Your task to perform on an android device: open device folders in google photos Image 0: 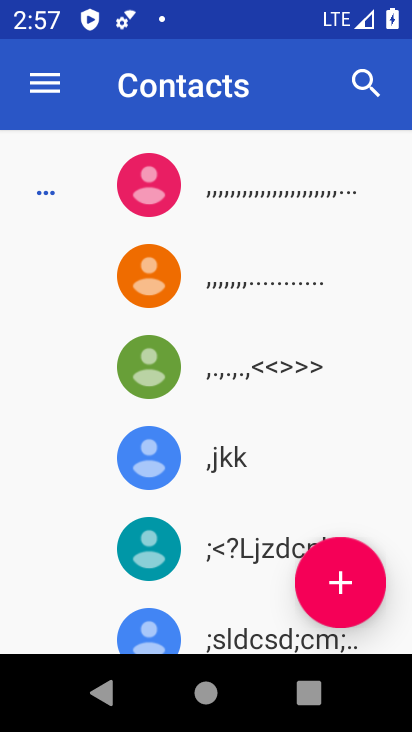
Step 0: press home button
Your task to perform on an android device: open device folders in google photos Image 1: 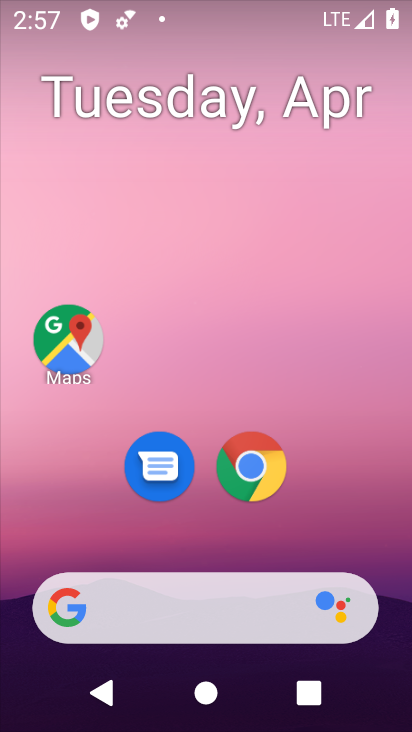
Step 1: drag from (189, 533) to (252, 33)
Your task to perform on an android device: open device folders in google photos Image 2: 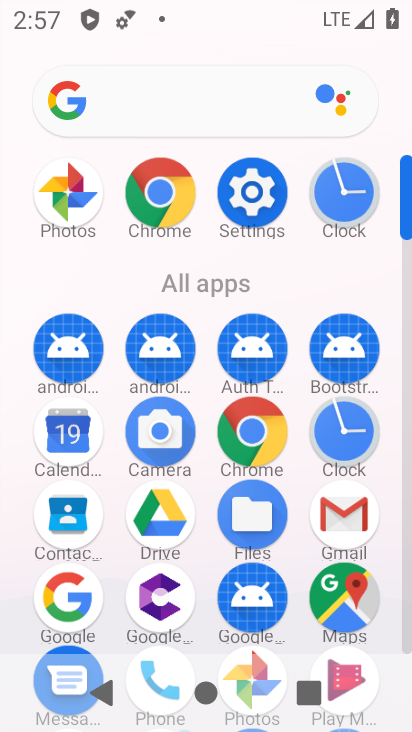
Step 2: click (253, 647)
Your task to perform on an android device: open device folders in google photos Image 3: 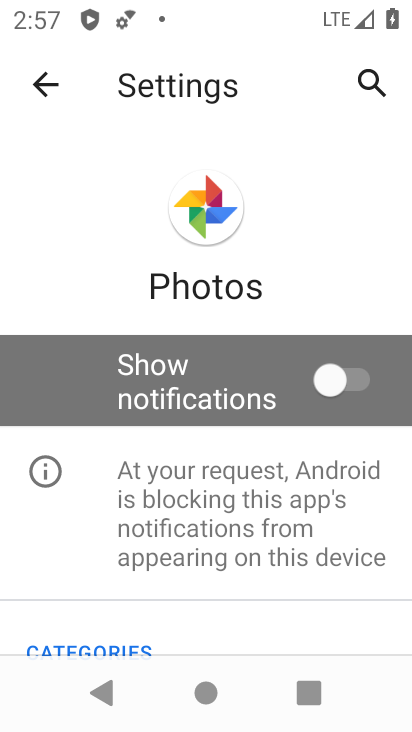
Step 3: click (30, 69)
Your task to perform on an android device: open device folders in google photos Image 4: 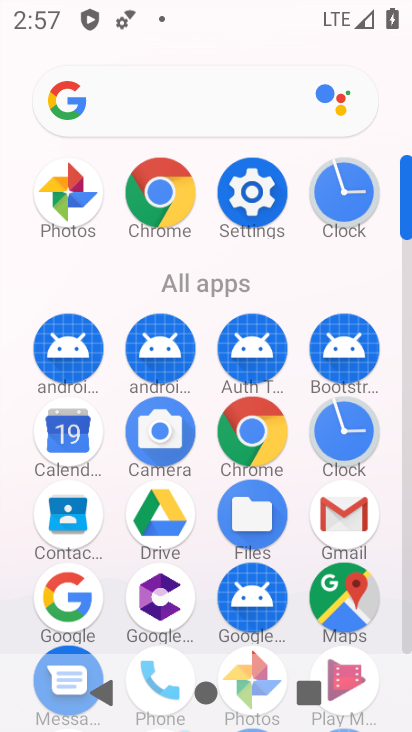
Step 4: click (44, 195)
Your task to perform on an android device: open device folders in google photos Image 5: 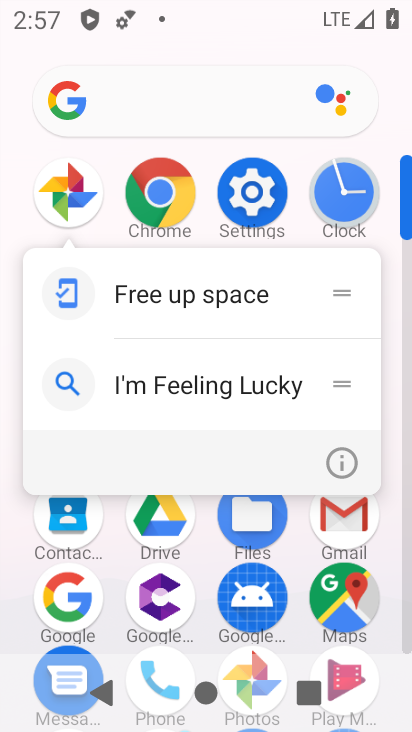
Step 5: click (53, 184)
Your task to perform on an android device: open device folders in google photos Image 6: 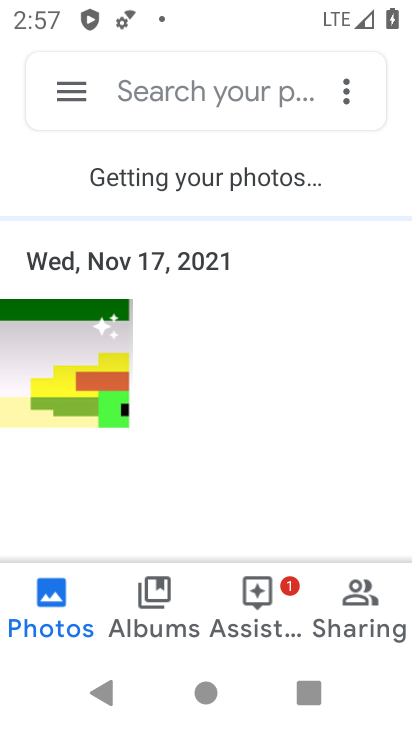
Step 6: click (69, 101)
Your task to perform on an android device: open device folders in google photos Image 7: 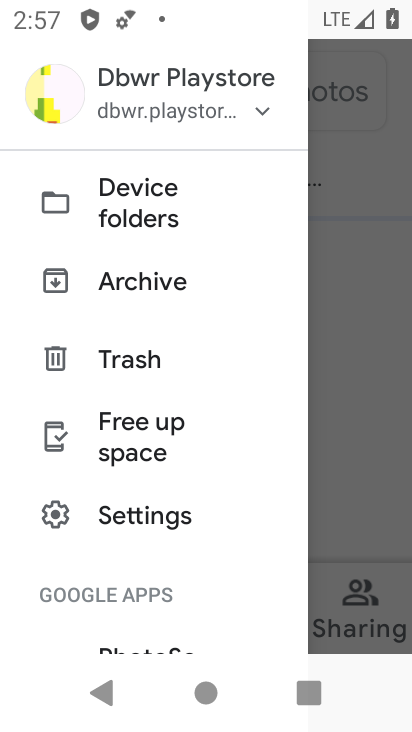
Step 7: click (120, 216)
Your task to perform on an android device: open device folders in google photos Image 8: 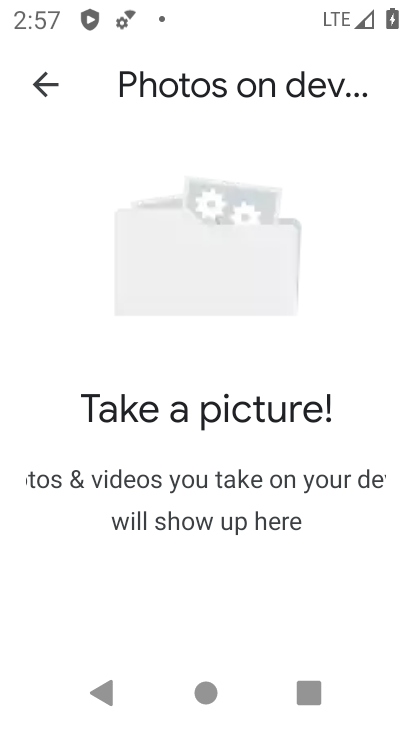
Step 8: task complete